Your task to perform on an android device: show emergency info Image 0: 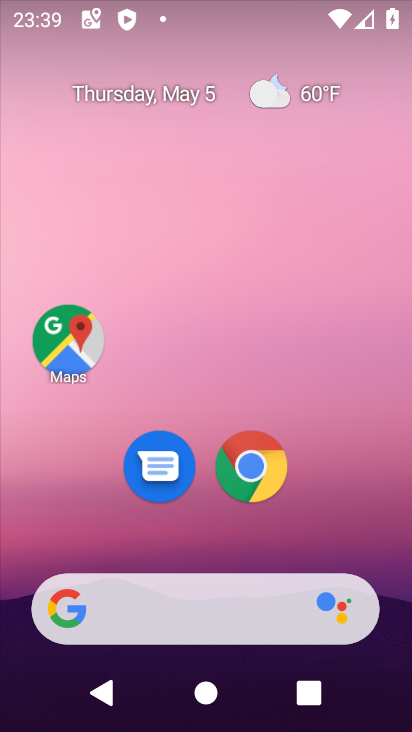
Step 0: drag from (216, 573) to (214, 142)
Your task to perform on an android device: show emergency info Image 1: 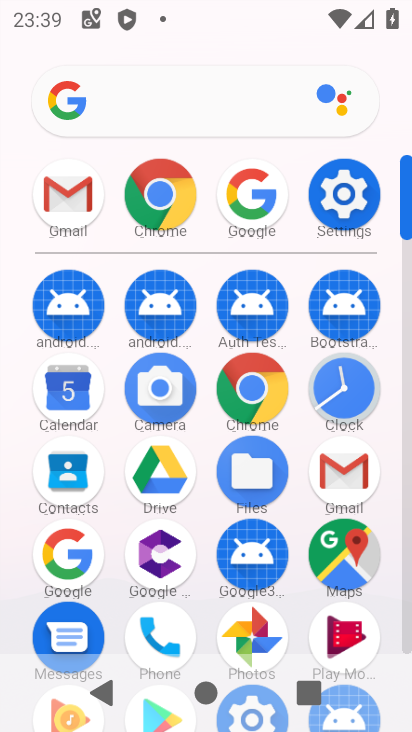
Step 1: click (344, 191)
Your task to perform on an android device: show emergency info Image 2: 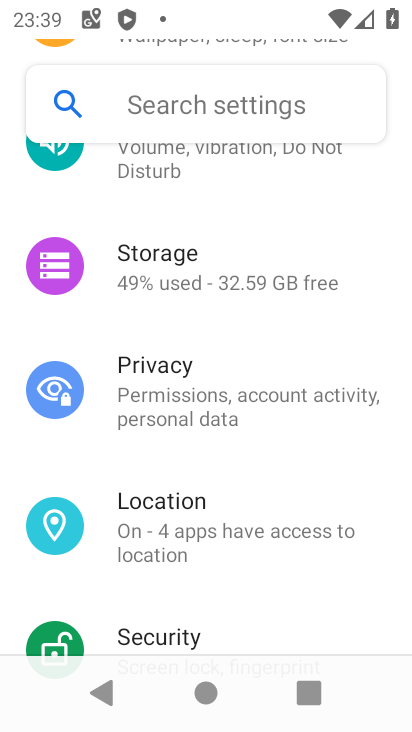
Step 2: drag from (193, 584) to (243, 203)
Your task to perform on an android device: show emergency info Image 3: 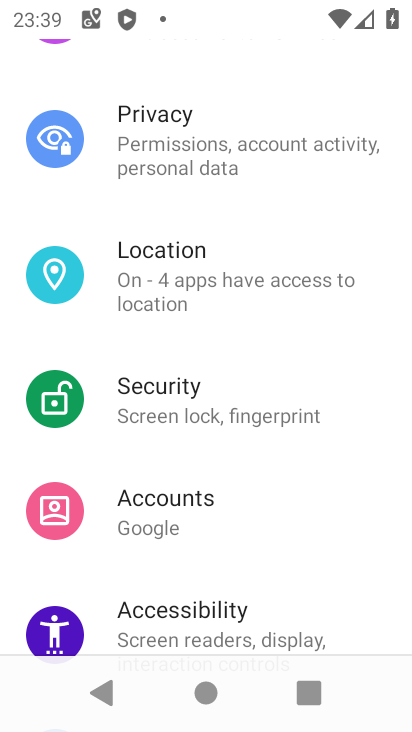
Step 3: drag from (201, 639) to (251, 330)
Your task to perform on an android device: show emergency info Image 4: 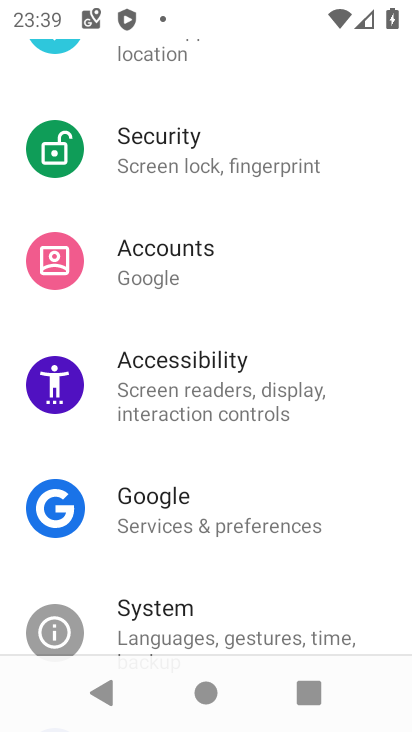
Step 4: drag from (215, 639) to (253, 318)
Your task to perform on an android device: show emergency info Image 5: 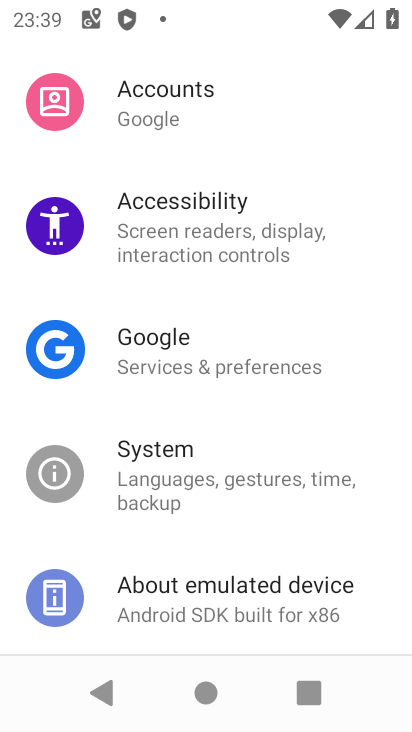
Step 5: click (199, 597)
Your task to perform on an android device: show emergency info Image 6: 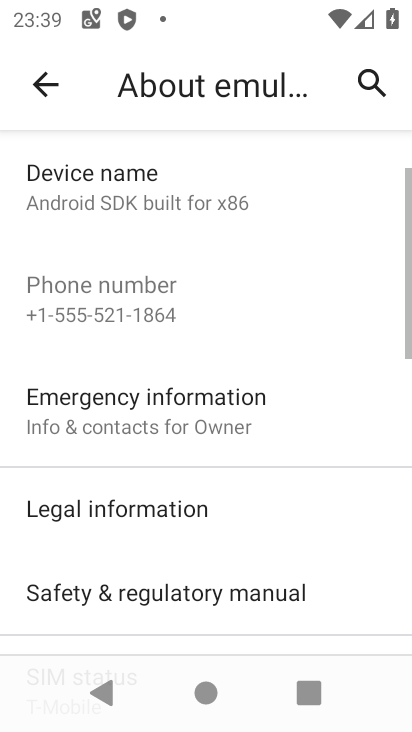
Step 6: click (157, 400)
Your task to perform on an android device: show emergency info Image 7: 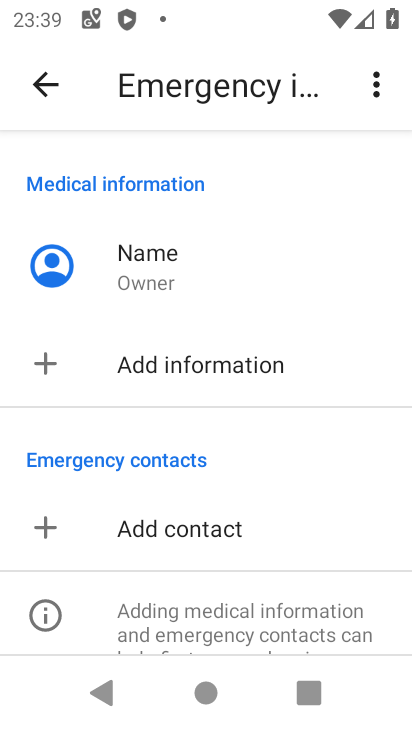
Step 7: task complete